Your task to perform on an android device: turn on airplane mode Image 0: 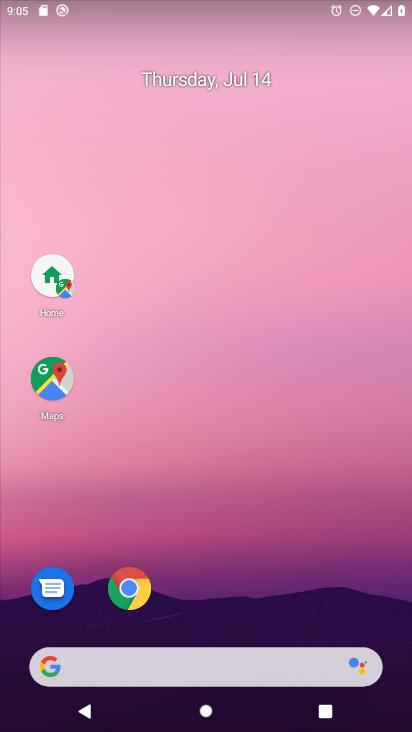
Step 0: drag from (17, 703) to (345, 94)
Your task to perform on an android device: turn on airplane mode Image 1: 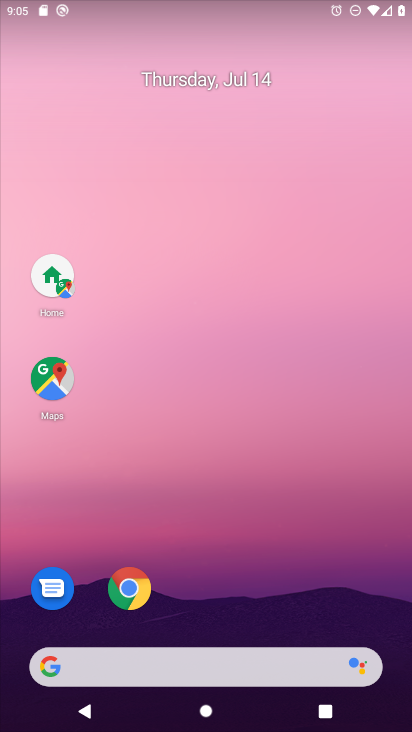
Step 1: drag from (16, 703) to (329, 0)
Your task to perform on an android device: turn on airplane mode Image 2: 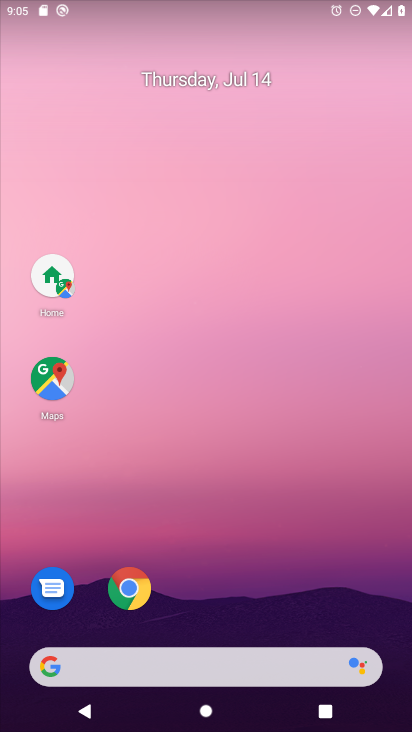
Step 2: drag from (38, 682) to (281, 0)
Your task to perform on an android device: turn on airplane mode Image 3: 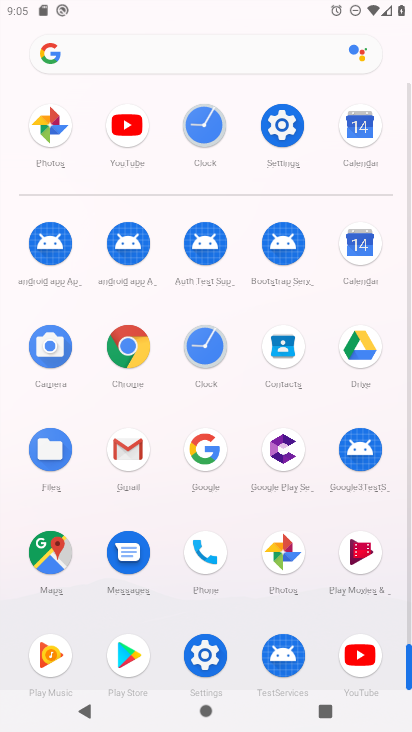
Step 3: click (199, 662)
Your task to perform on an android device: turn on airplane mode Image 4: 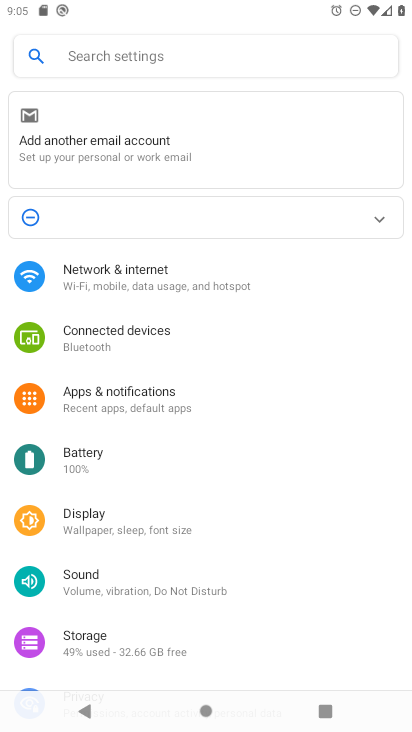
Step 4: click (157, 287)
Your task to perform on an android device: turn on airplane mode Image 5: 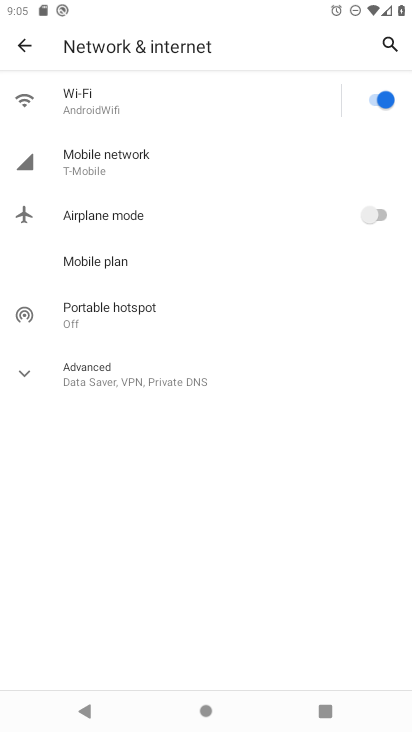
Step 5: click (373, 214)
Your task to perform on an android device: turn on airplane mode Image 6: 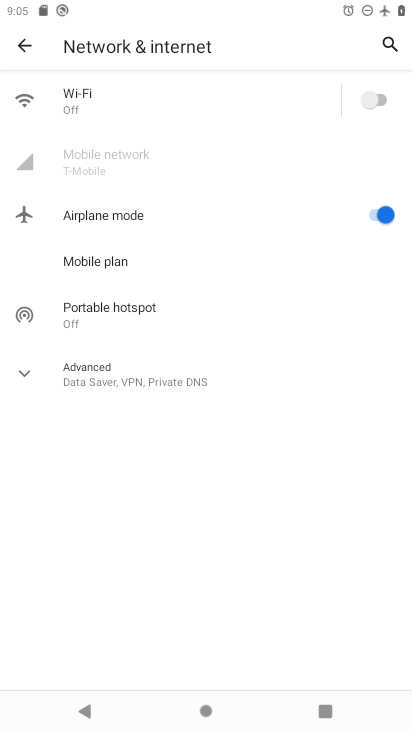
Step 6: task complete